Your task to perform on an android device: check battery use Image 0: 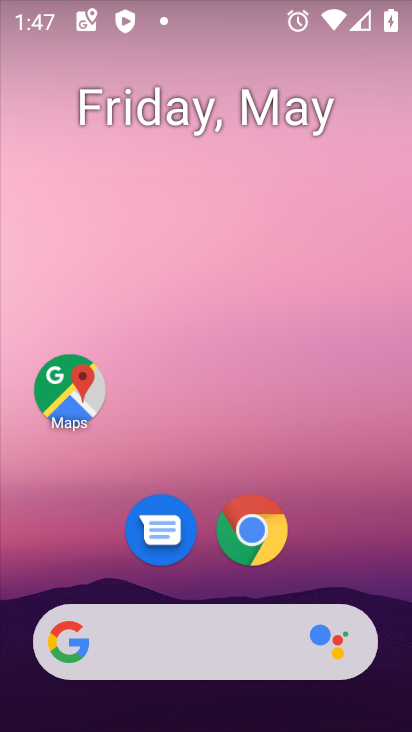
Step 0: drag from (313, 565) to (282, 0)
Your task to perform on an android device: check battery use Image 1: 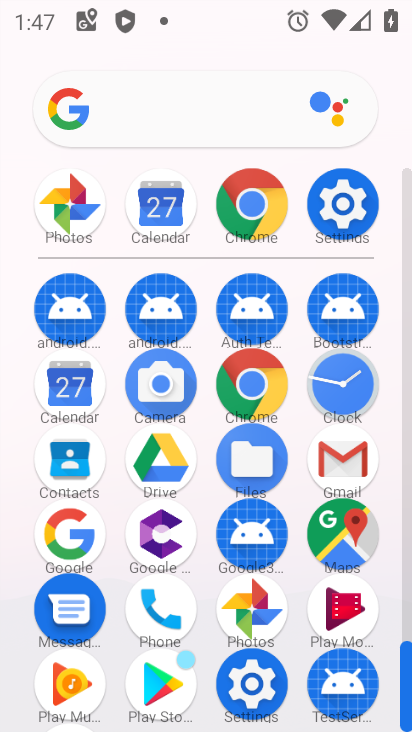
Step 1: click (342, 214)
Your task to perform on an android device: check battery use Image 2: 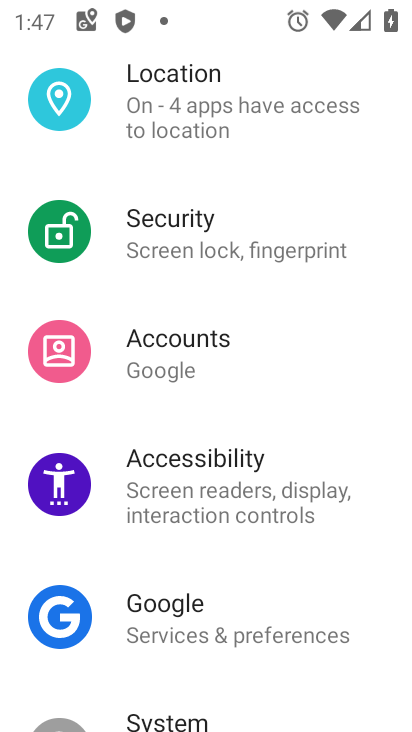
Step 2: drag from (204, 256) to (244, 610)
Your task to perform on an android device: check battery use Image 3: 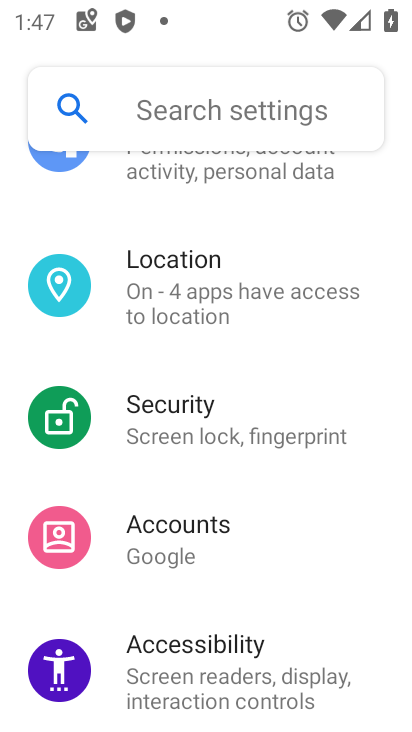
Step 3: drag from (220, 297) to (272, 651)
Your task to perform on an android device: check battery use Image 4: 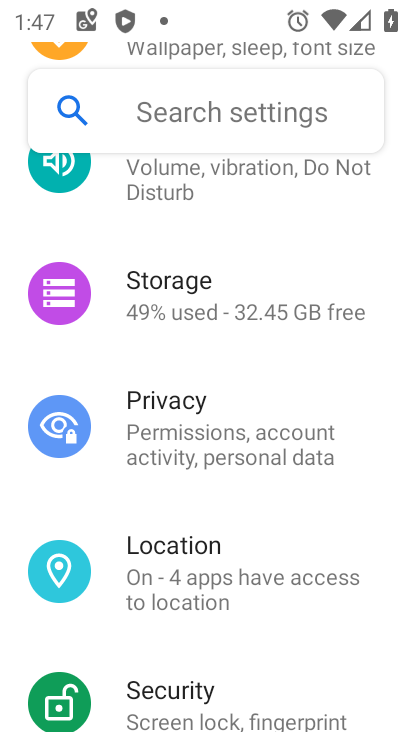
Step 4: drag from (228, 273) to (244, 665)
Your task to perform on an android device: check battery use Image 5: 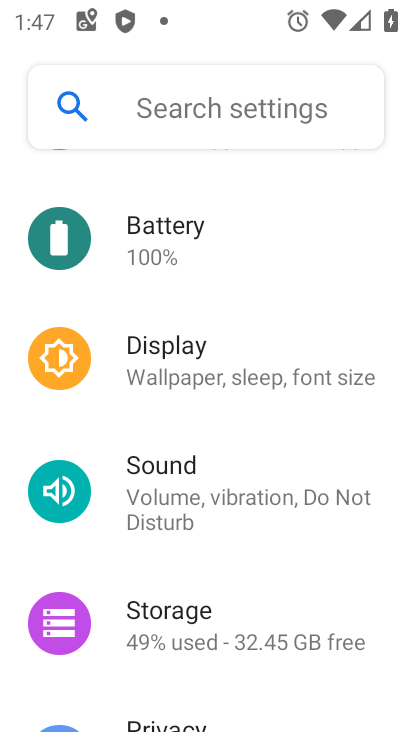
Step 5: click (210, 251)
Your task to perform on an android device: check battery use Image 6: 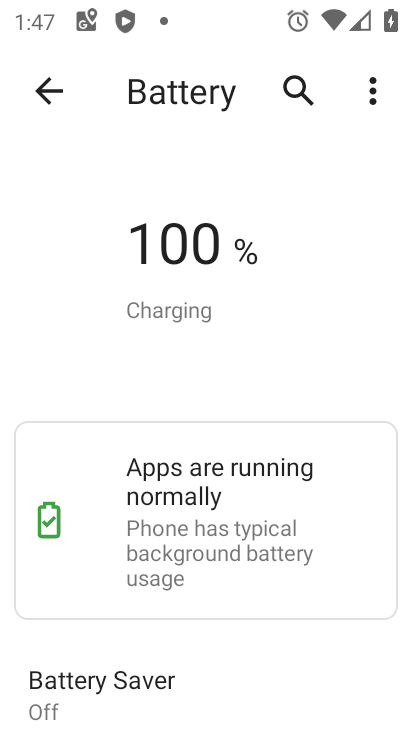
Step 6: click (375, 95)
Your task to perform on an android device: check battery use Image 7: 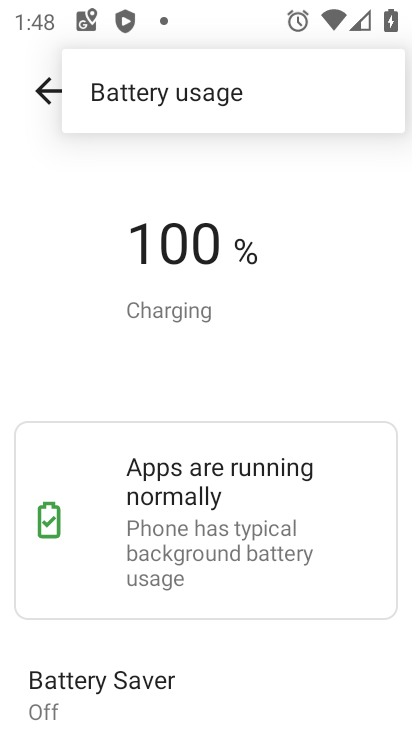
Step 7: click (231, 103)
Your task to perform on an android device: check battery use Image 8: 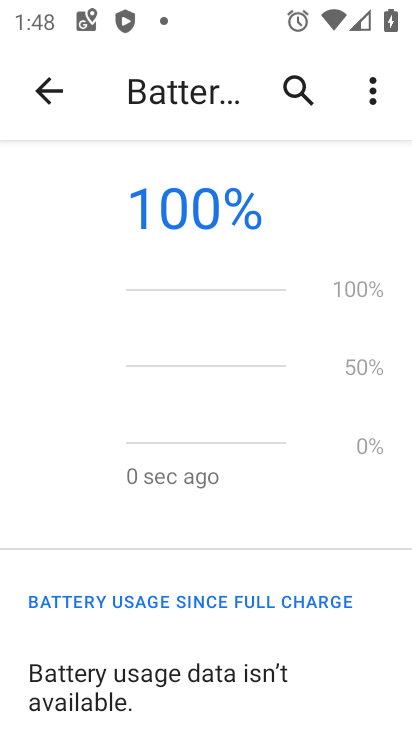
Step 8: task complete